Your task to perform on an android device: Clear the cart on newegg.com. Search for logitech g502 on newegg.com, select the first entry, and add it to the cart. Image 0: 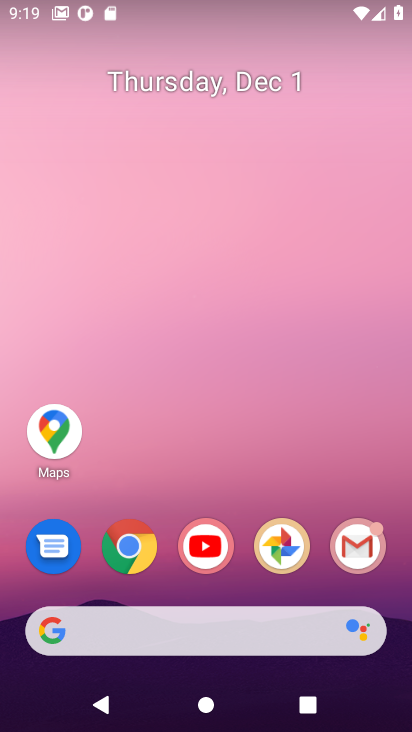
Step 0: click (126, 549)
Your task to perform on an android device: Clear the cart on newegg.com. Search for logitech g502 on newegg.com, select the first entry, and add it to the cart. Image 1: 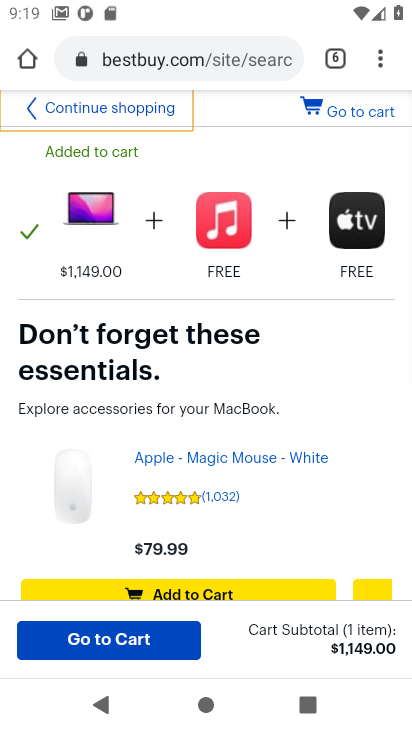
Step 1: click (174, 64)
Your task to perform on an android device: Clear the cart on newegg.com. Search for logitech g502 on newegg.com, select the first entry, and add it to the cart. Image 2: 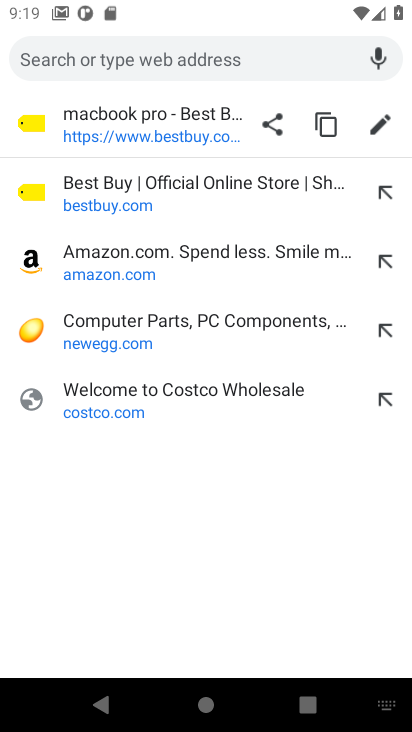
Step 2: click (117, 342)
Your task to perform on an android device: Clear the cart on newegg.com. Search for logitech g502 on newegg.com, select the first entry, and add it to the cart. Image 3: 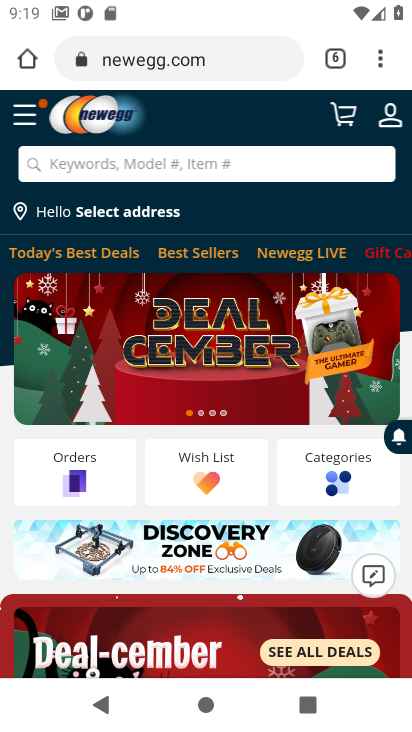
Step 3: click (338, 117)
Your task to perform on an android device: Clear the cart on newegg.com. Search for logitech g502 on newegg.com, select the first entry, and add it to the cart. Image 4: 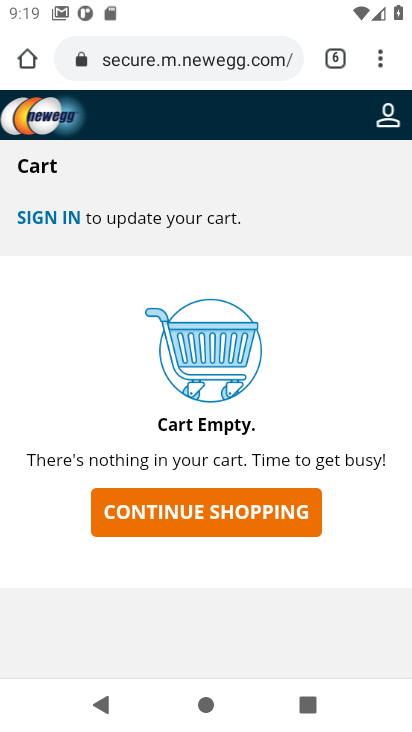
Step 4: click (185, 500)
Your task to perform on an android device: Clear the cart on newegg.com. Search for logitech g502 on newegg.com, select the first entry, and add it to the cart. Image 5: 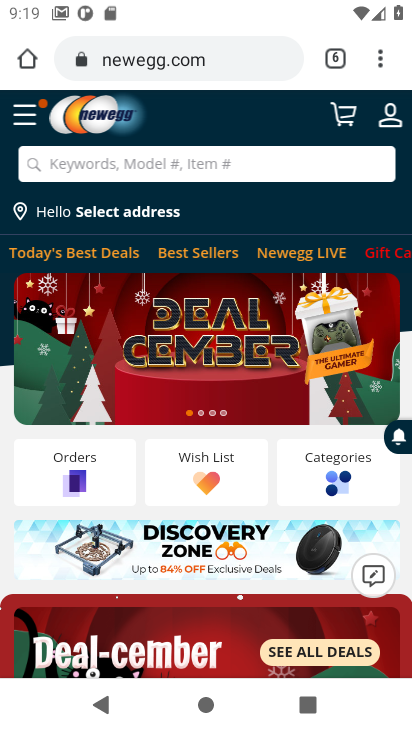
Step 5: click (82, 163)
Your task to perform on an android device: Clear the cart on newegg.com. Search for logitech g502 on newegg.com, select the first entry, and add it to the cart. Image 6: 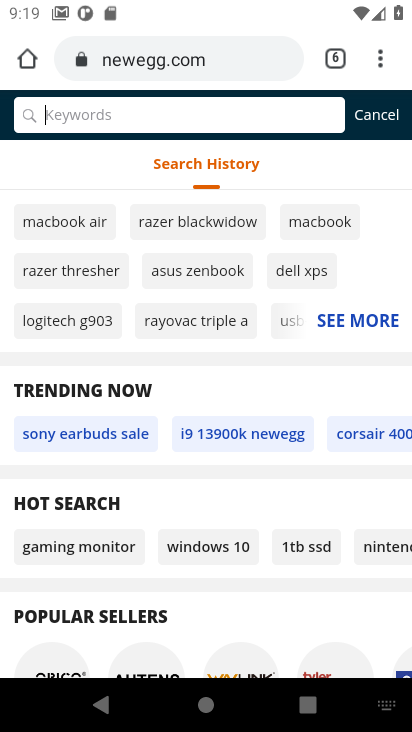
Step 6: type "logitech g502 "
Your task to perform on an android device: Clear the cart on newegg.com. Search for logitech g502 on newegg.com, select the first entry, and add it to the cart. Image 7: 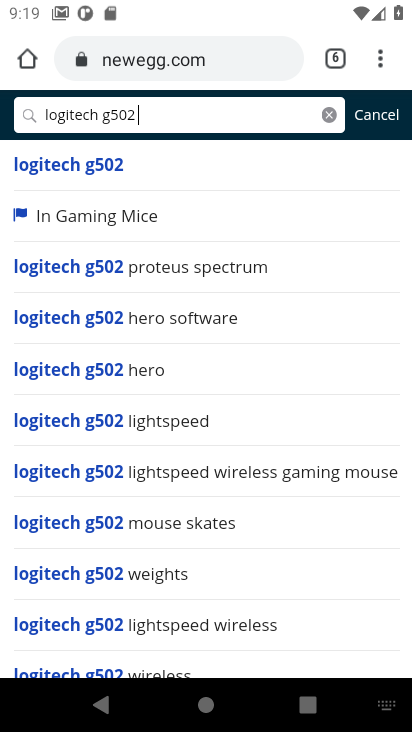
Step 7: click (70, 162)
Your task to perform on an android device: Clear the cart on newegg.com. Search for logitech g502 on newegg.com, select the first entry, and add it to the cart. Image 8: 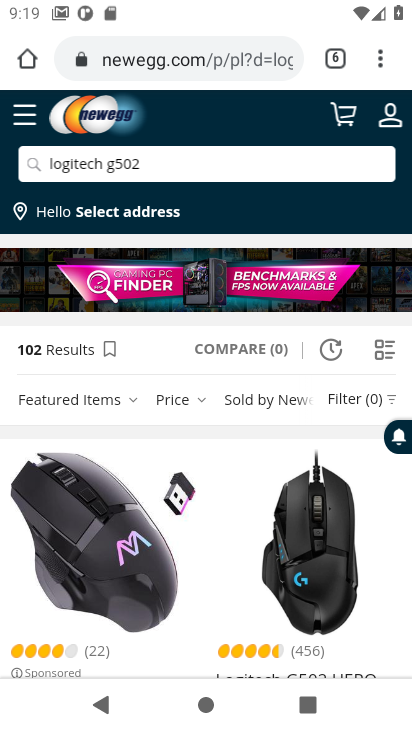
Step 8: drag from (176, 459) to (202, 124)
Your task to perform on an android device: Clear the cart on newegg.com. Search for logitech g502 on newegg.com, select the first entry, and add it to the cart. Image 9: 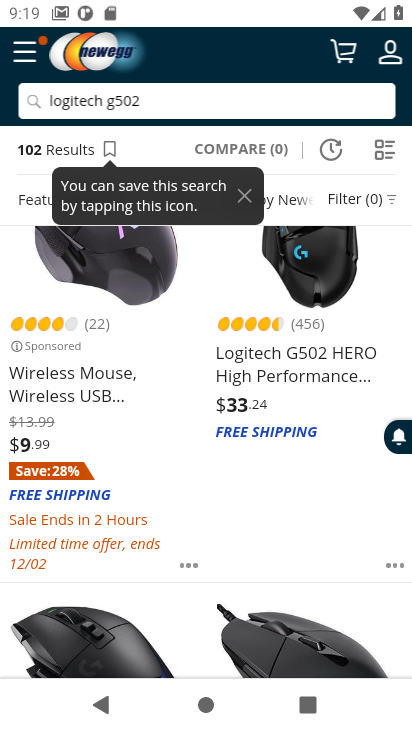
Step 9: click (69, 277)
Your task to perform on an android device: Clear the cart on newegg.com. Search for logitech g502 on newegg.com, select the first entry, and add it to the cart. Image 10: 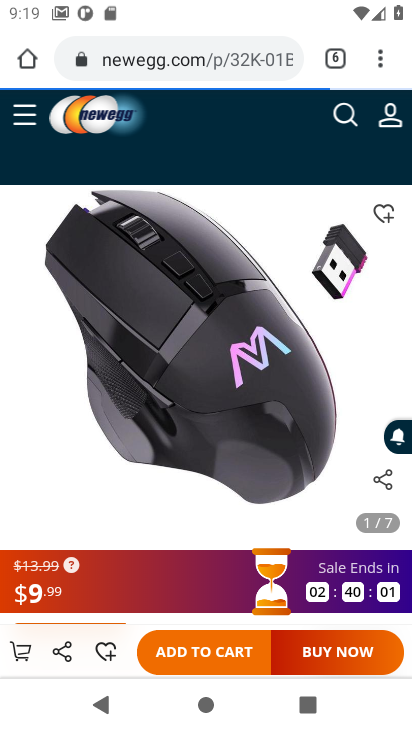
Step 10: task complete